Your task to perform on an android device: turn off picture-in-picture Image 0: 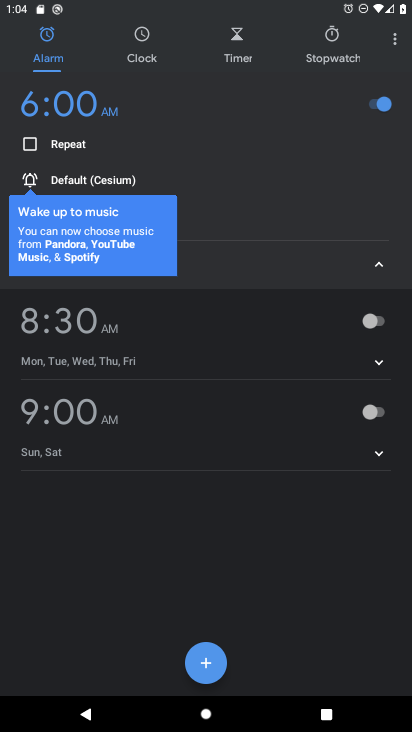
Step 0: press home button
Your task to perform on an android device: turn off picture-in-picture Image 1: 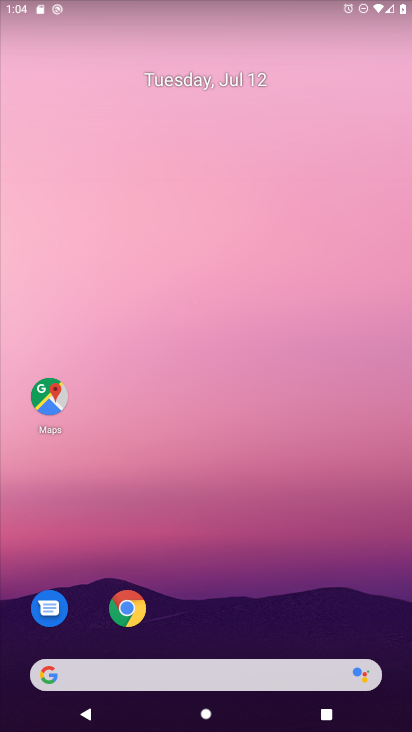
Step 1: click (124, 618)
Your task to perform on an android device: turn off picture-in-picture Image 2: 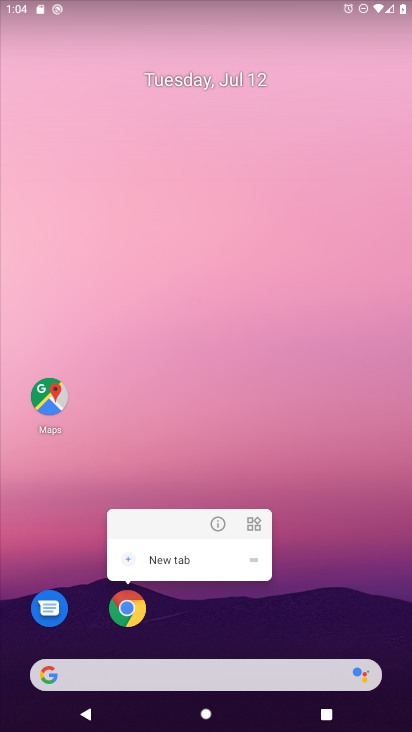
Step 2: click (212, 523)
Your task to perform on an android device: turn off picture-in-picture Image 3: 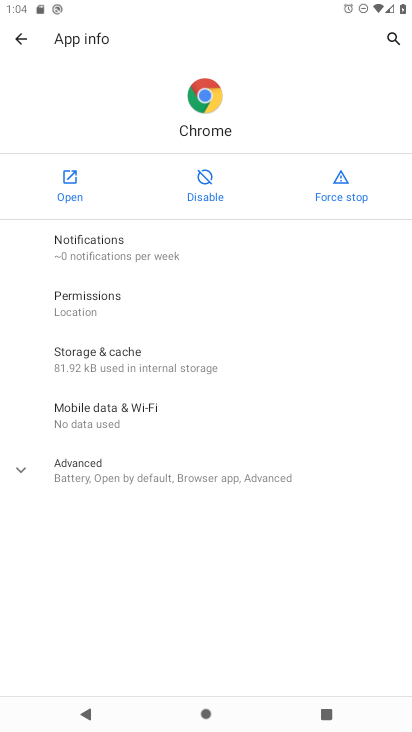
Step 3: click (132, 472)
Your task to perform on an android device: turn off picture-in-picture Image 4: 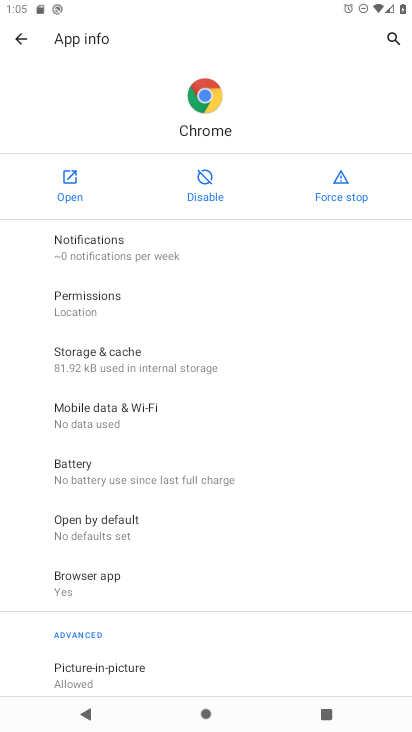
Step 4: click (113, 671)
Your task to perform on an android device: turn off picture-in-picture Image 5: 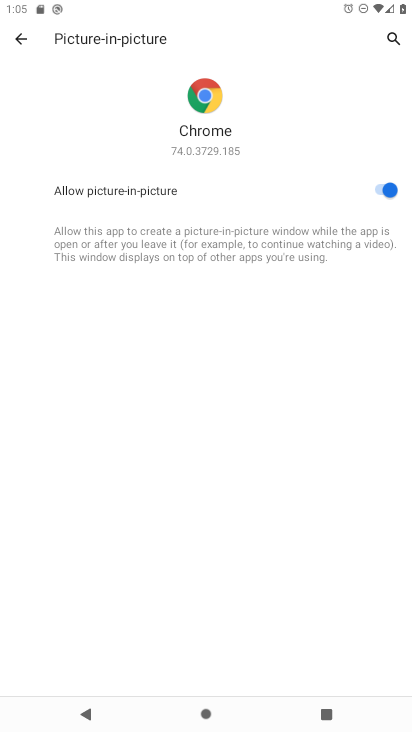
Step 5: click (376, 187)
Your task to perform on an android device: turn off picture-in-picture Image 6: 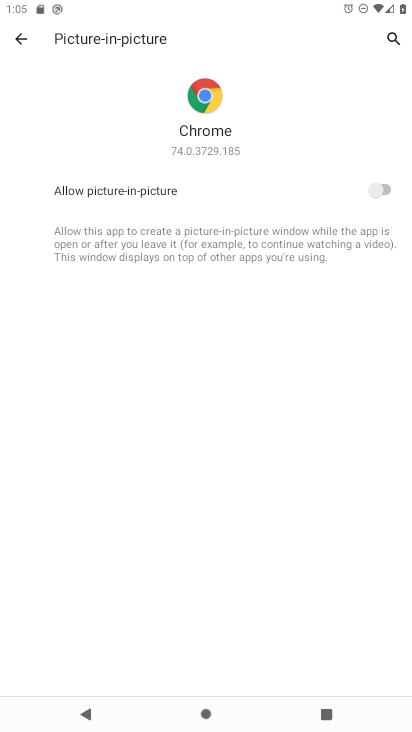
Step 6: task complete